Your task to perform on an android device: Open location settings Image 0: 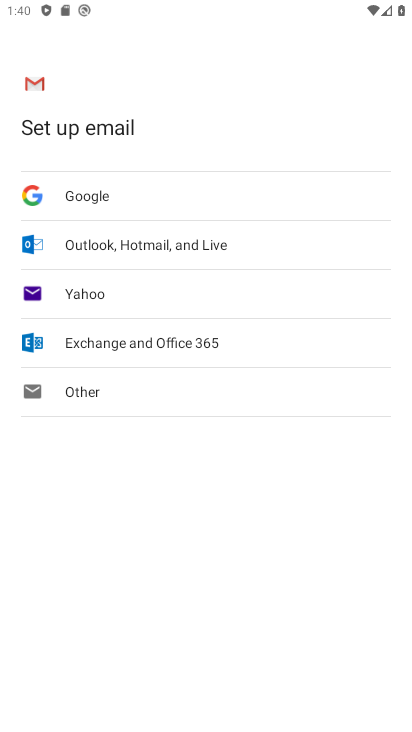
Step 0: press home button
Your task to perform on an android device: Open location settings Image 1: 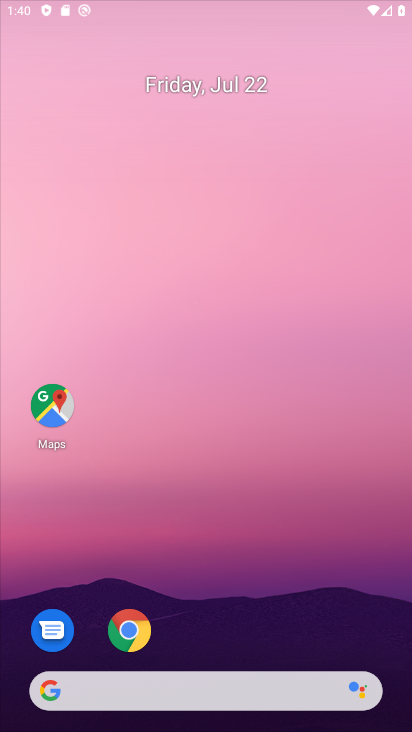
Step 1: drag from (192, 651) to (212, 184)
Your task to perform on an android device: Open location settings Image 2: 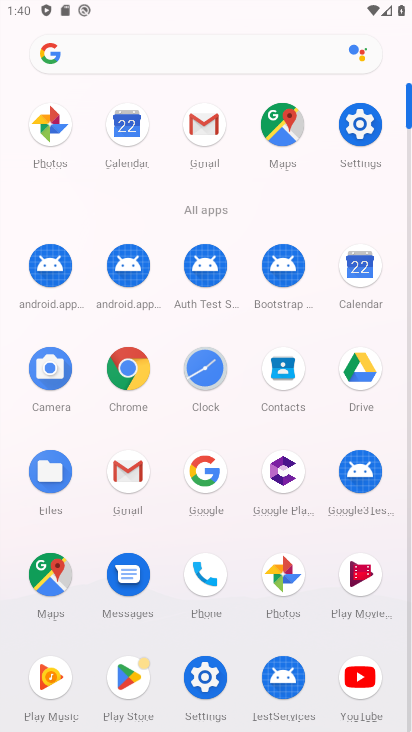
Step 2: click (366, 121)
Your task to perform on an android device: Open location settings Image 3: 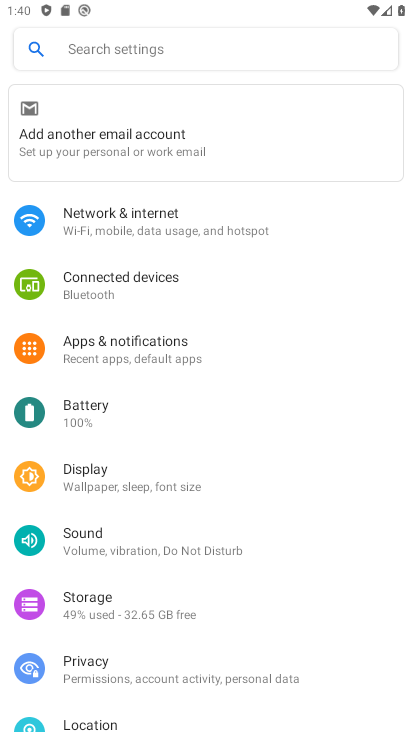
Step 3: drag from (90, 681) to (103, 416)
Your task to perform on an android device: Open location settings Image 4: 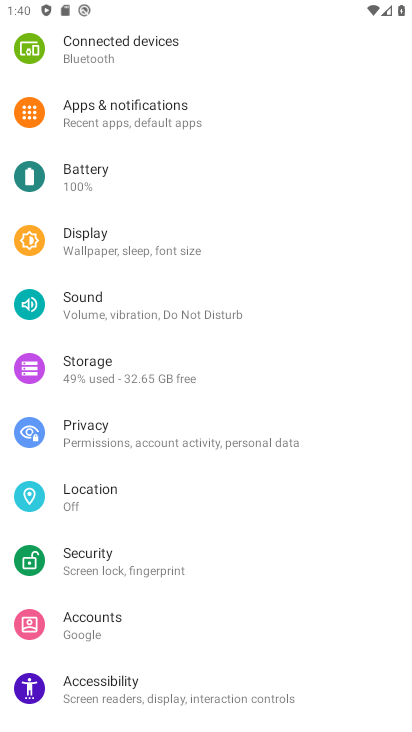
Step 4: click (101, 503)
Your task to perform on an android device: Open location settings Image 5: 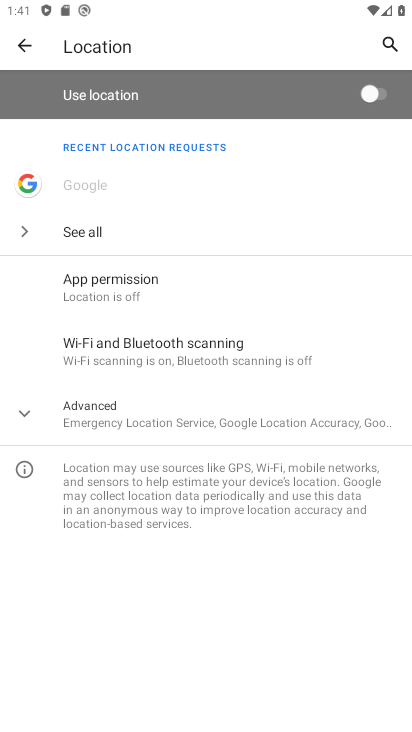
Step 5: task complete